Your task to perform on an android device: Open the map Image 0: 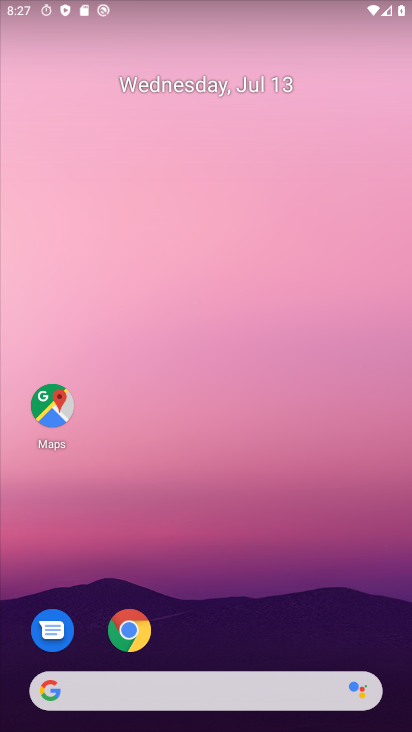
Step 0: drag from (195, 578) to (235, 196)
Your task to perform on an android device: Open the map Image 1: 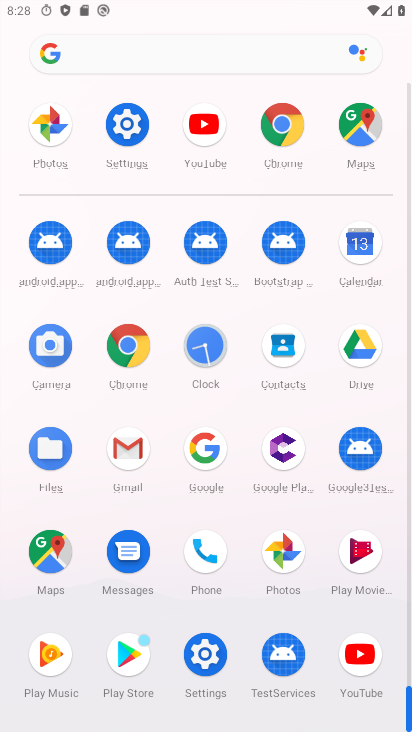
Step 1: click (41, 552)
Your task to perform on an android device: Open the map Image 2: 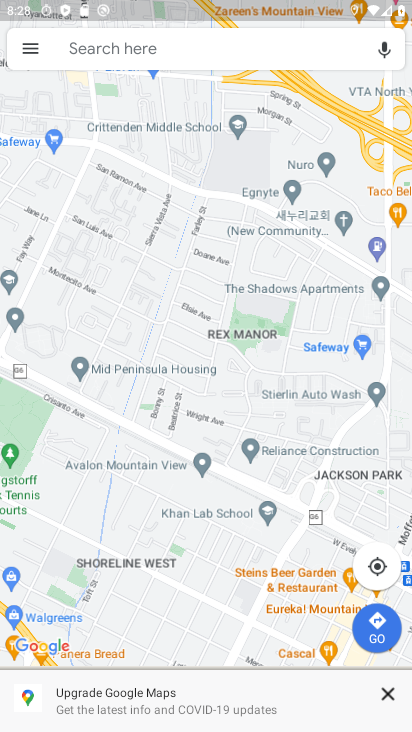
Step 2: task complete